Your task to perform on an android device: read, delete, or share a saved page in the chrome app Image 0: 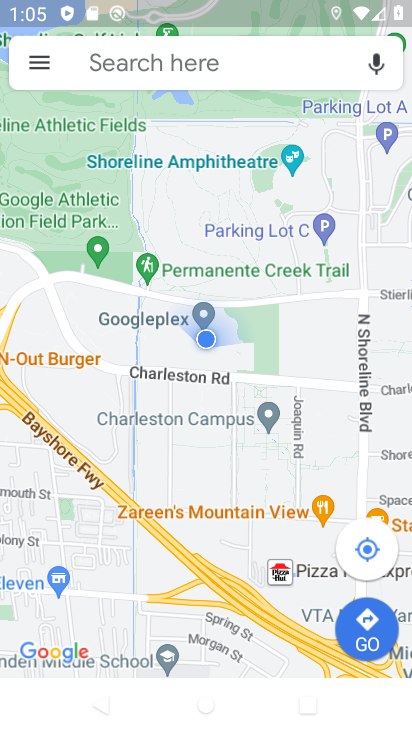
Step 0: press home button
Your task to perform on an android device: read, delete, or share a saved page in the chrome app Image 1: 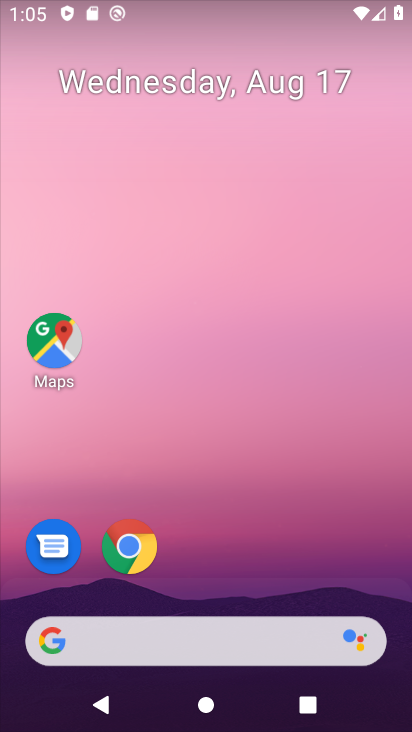
Step 1: click (119, 543)
Your task to perform on an android device: read, delete, or share a saved page in the chrome app Image 2: 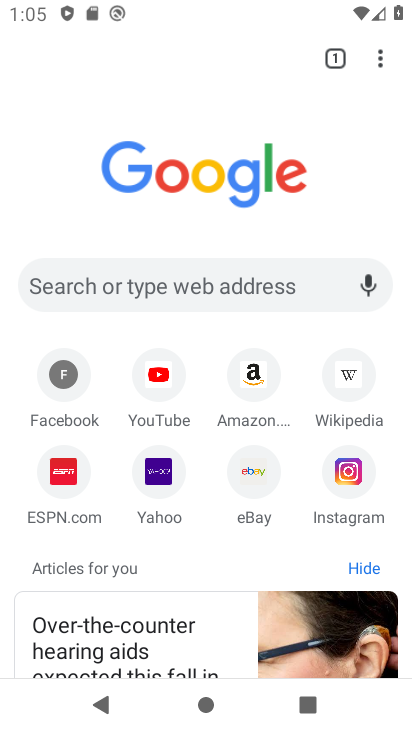
Step 2: click (381, 60)
Your task to perform on an android device: read, delete, or share a saved page in the chrome app Image 3: 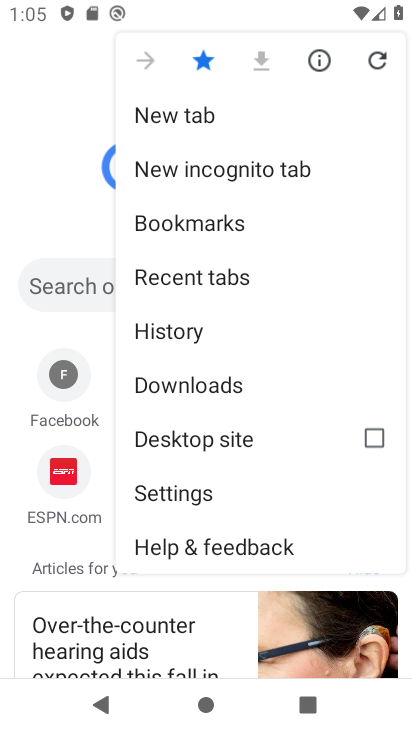
Step 3: click (170, 383)
Your task to perform on an android device: read, delete, or share a saved page in the chrome app Image 4: 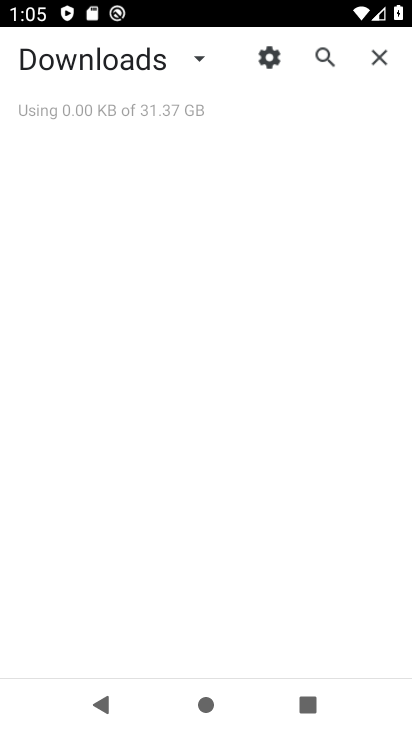
Step 4: click (197, 59)
Your task to perform on an android device: read, delete, or share a saved page in the chrome app Image 5: 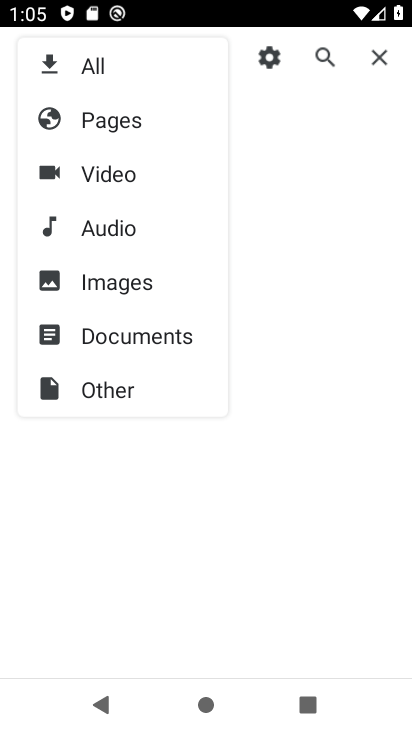
Step 5: click (122, 125)
Your task to perform on an android device: read, delete, or share a saved page in the chrome app Image 6: 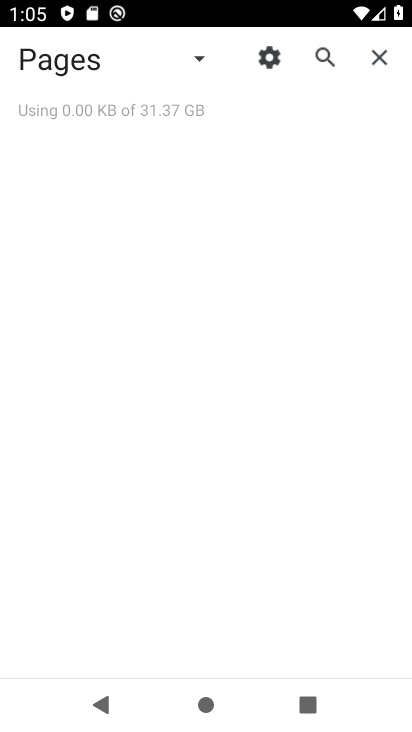
Step 6: task complete